Your task to perform on an android device: Open Youtube and go to "Your channel" Image 0: 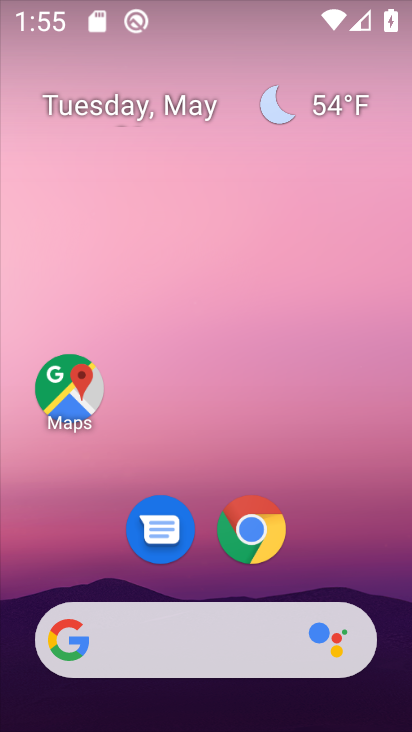
Step 0: drag from (296, 544) to (284, 239)
Your task to perform on an android device: Open Youtube and go to "Your channel" Image 1: 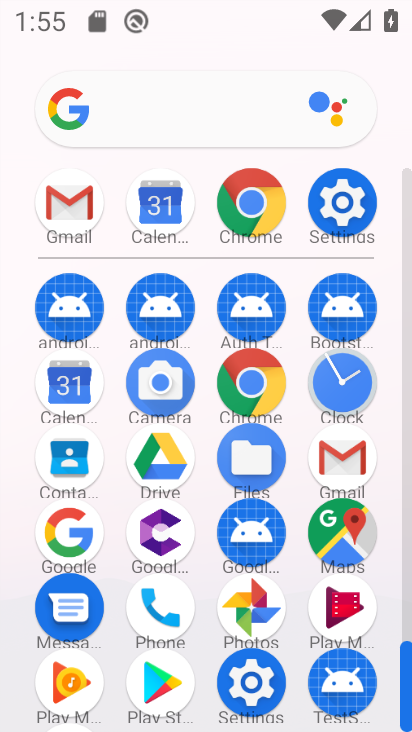
Step 1: drag from (288, 656) to (283, 390)
Your task to perform on an android device: Open Youtube and go to "Your channel" Image 2: 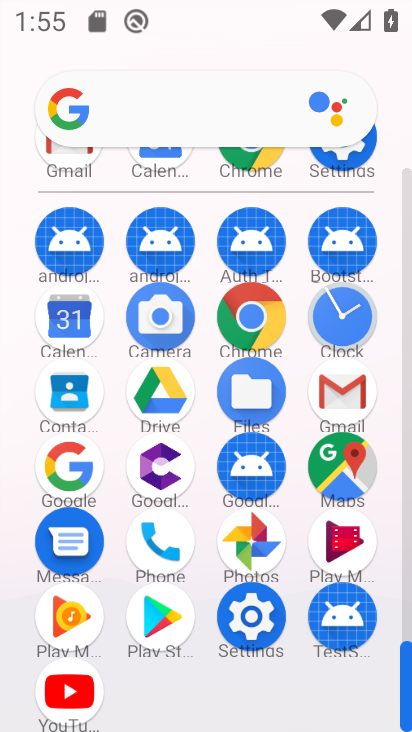
Step 2: click (80, 679)
Your task to perform on an android device: Open Youtube and go to "Your channel" Image 3: 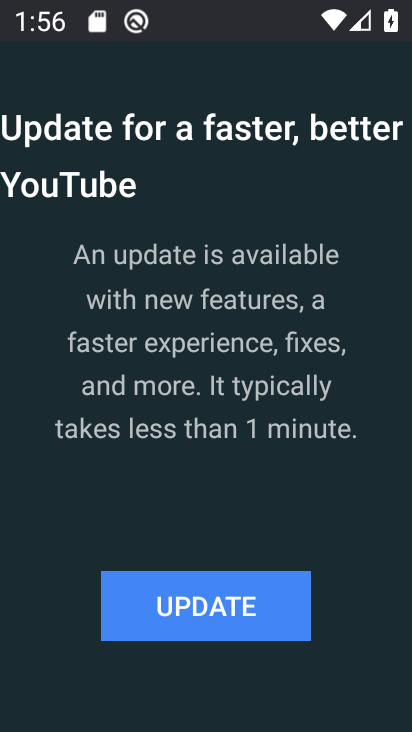
Step 3: task complete